Your task to perform on an android device: Go to display settings Image 0: 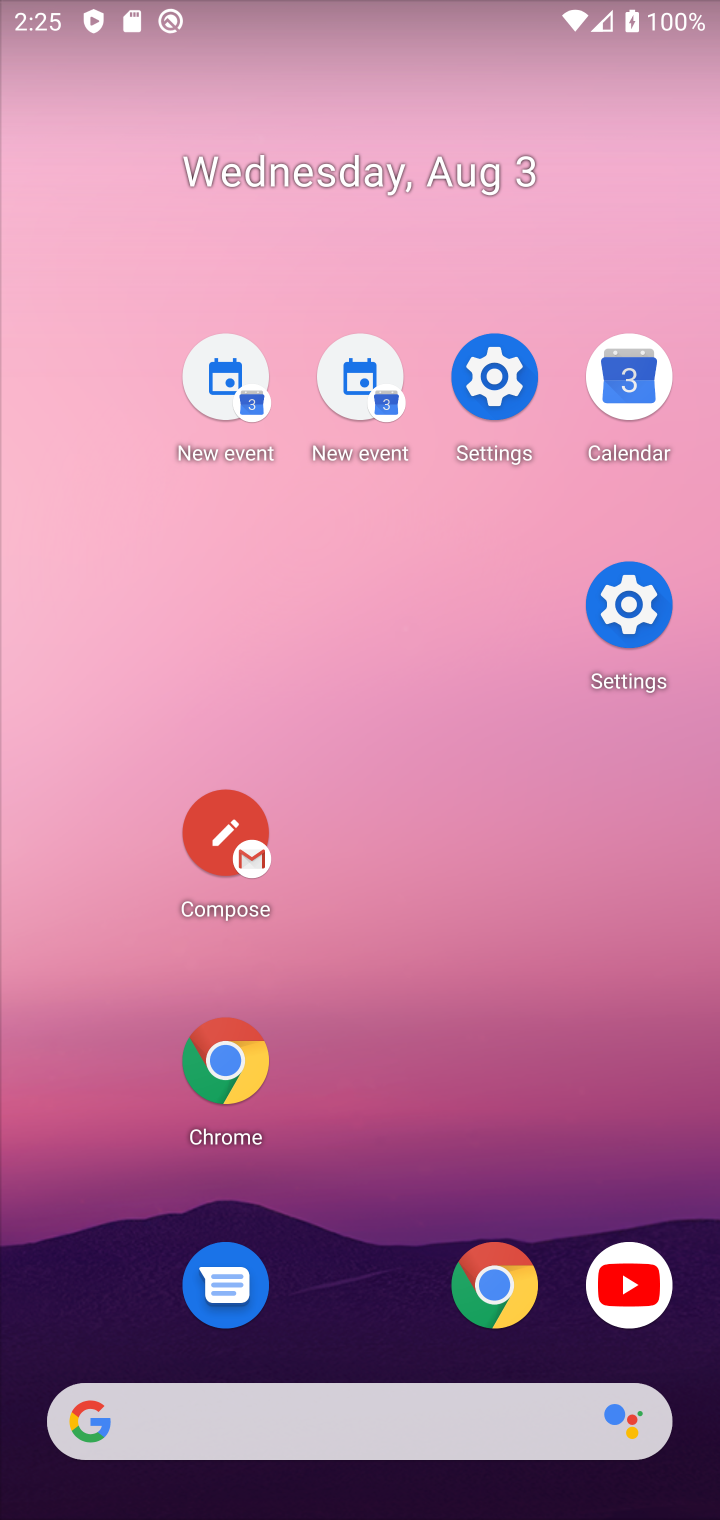
Step 0: drag from (254, 439) to (244, 100)
Your task to perform on an android device: Go to display settings Image 1: 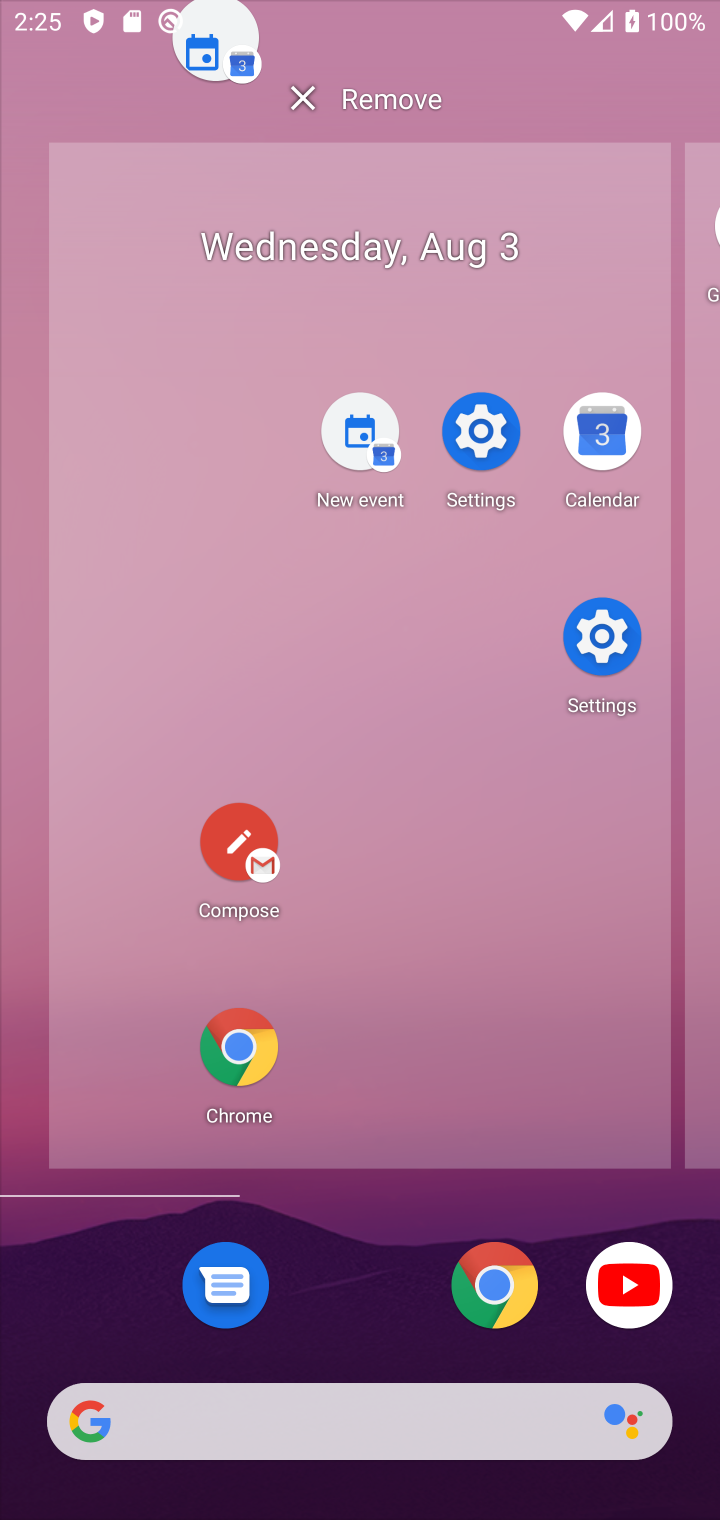
Step 1: click (298, 70)
Your task to perform on an android device: Go to display settings Image 2: 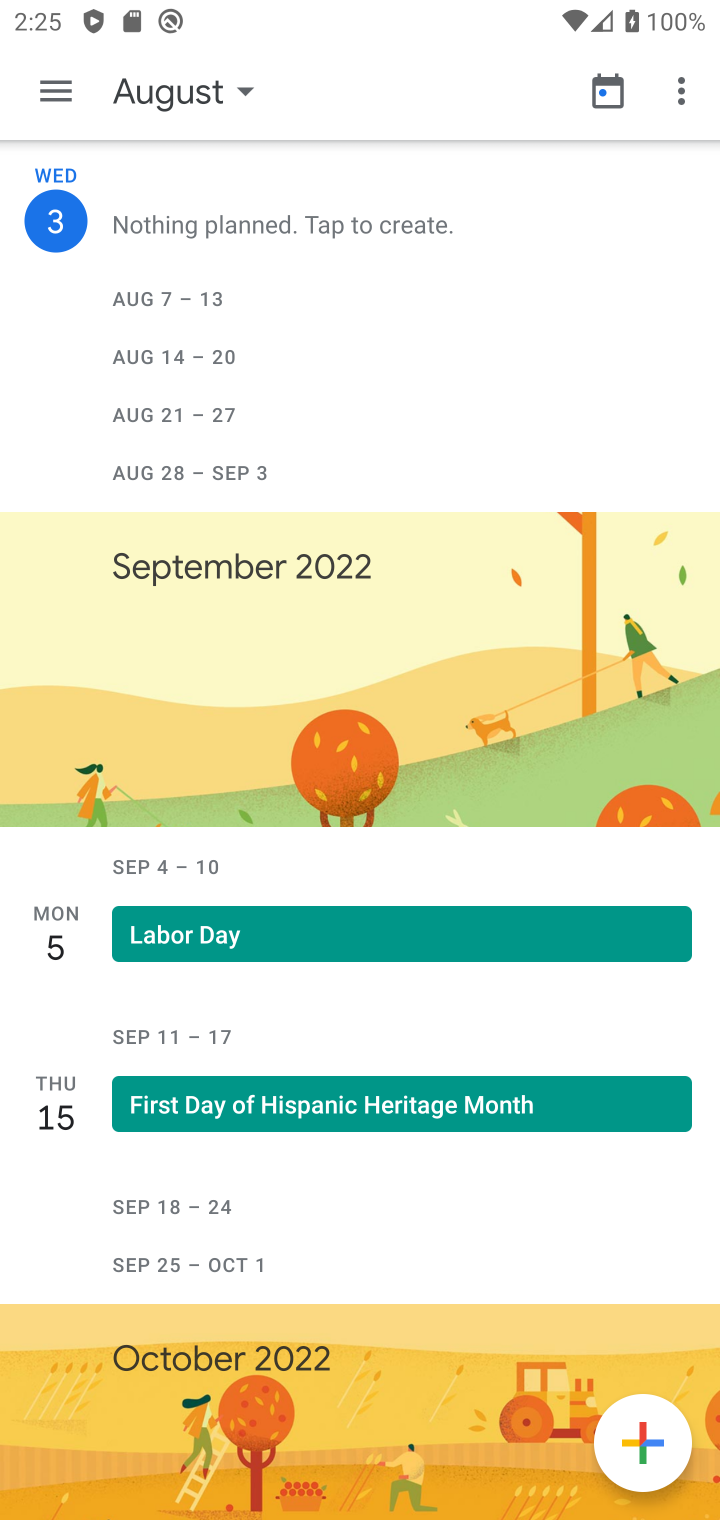
Step 2: press back button
Your task to perform on an android device: Go to display settings Image 3: 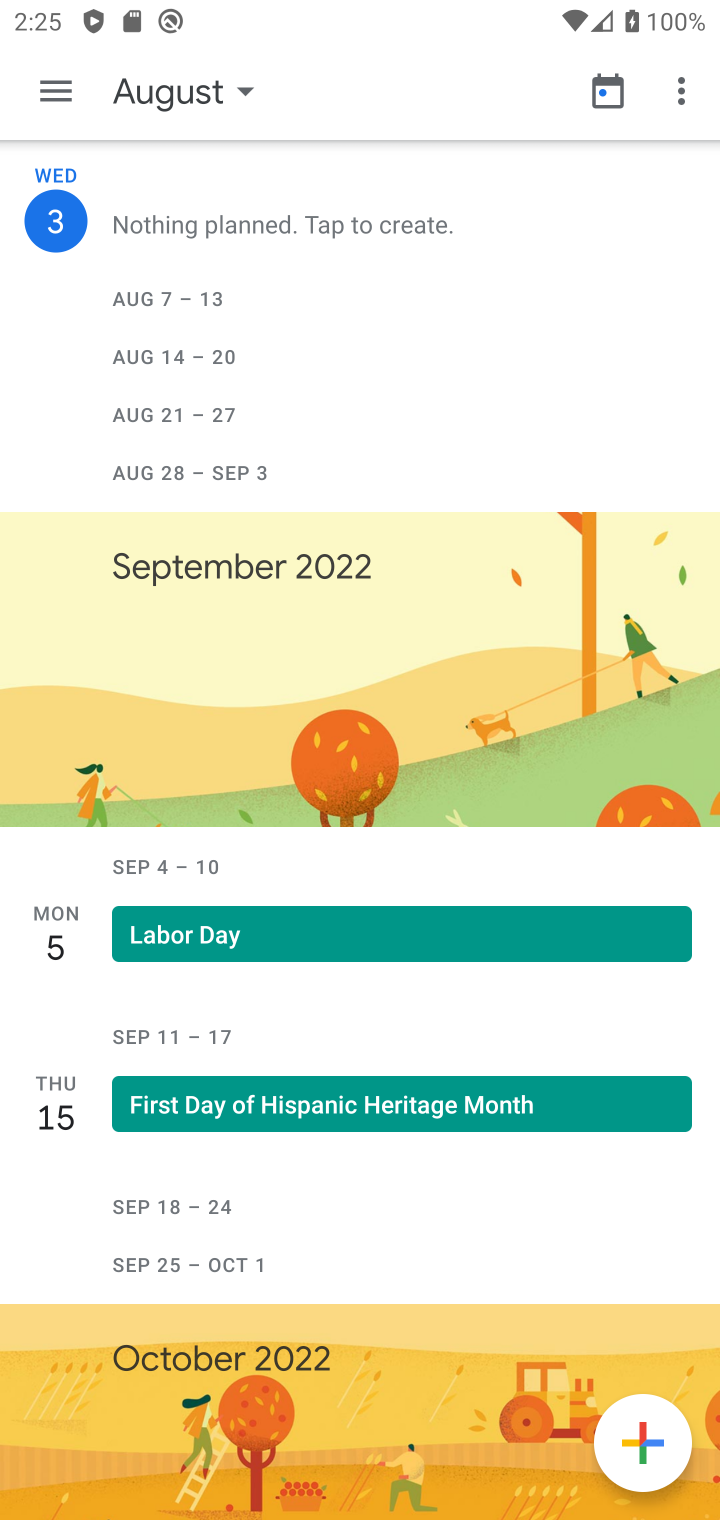
Step 3: press back button
Your task to perform on an android device: Go to display settings Image 4: 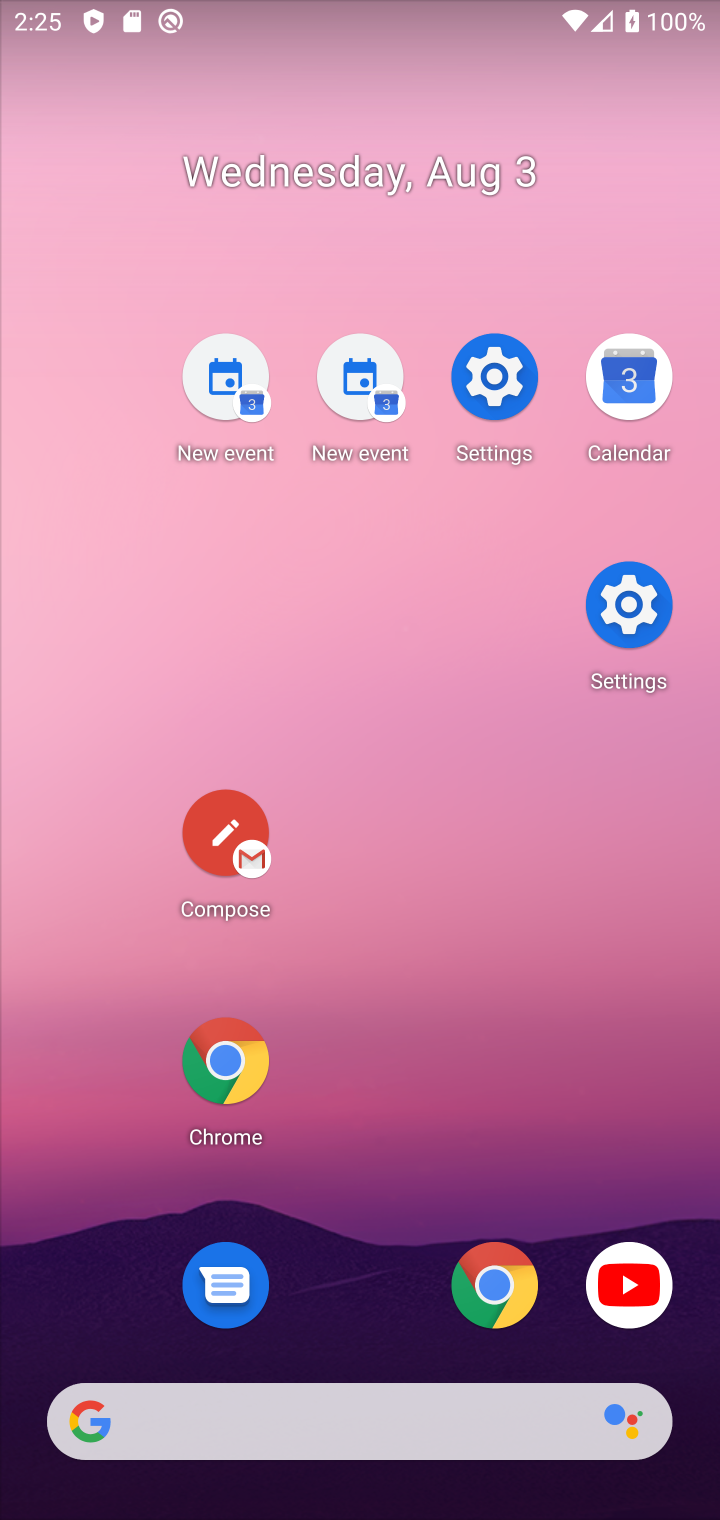
Step 4: press back button
Your task to perform on an android device: Go to display settings Image 5: 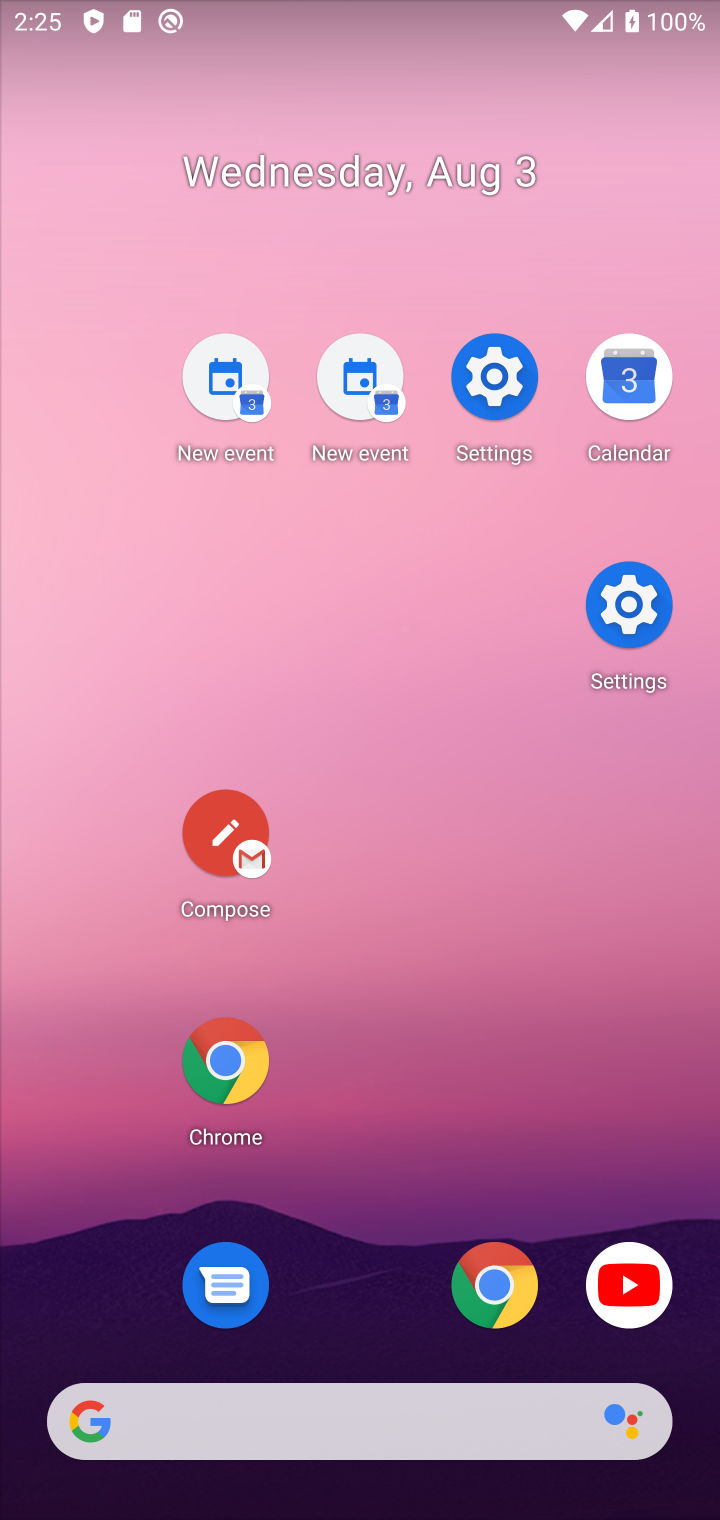
Step 5: press home button
Your task to perform on an android device: Go to display settings Image 6: 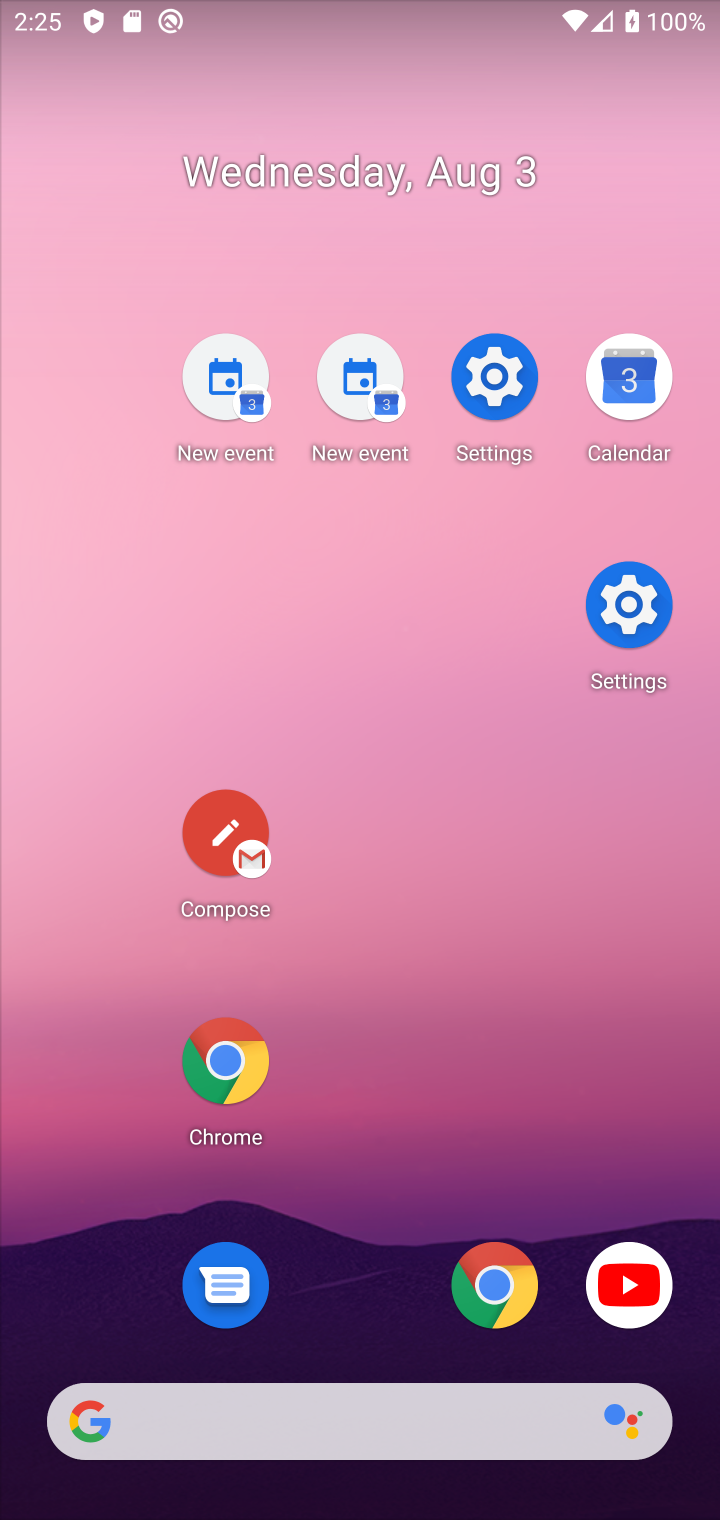
Step 6: drag from (310, 998) to (266, 436)
Your task to perform on an android device: Go to display settings Image 7: 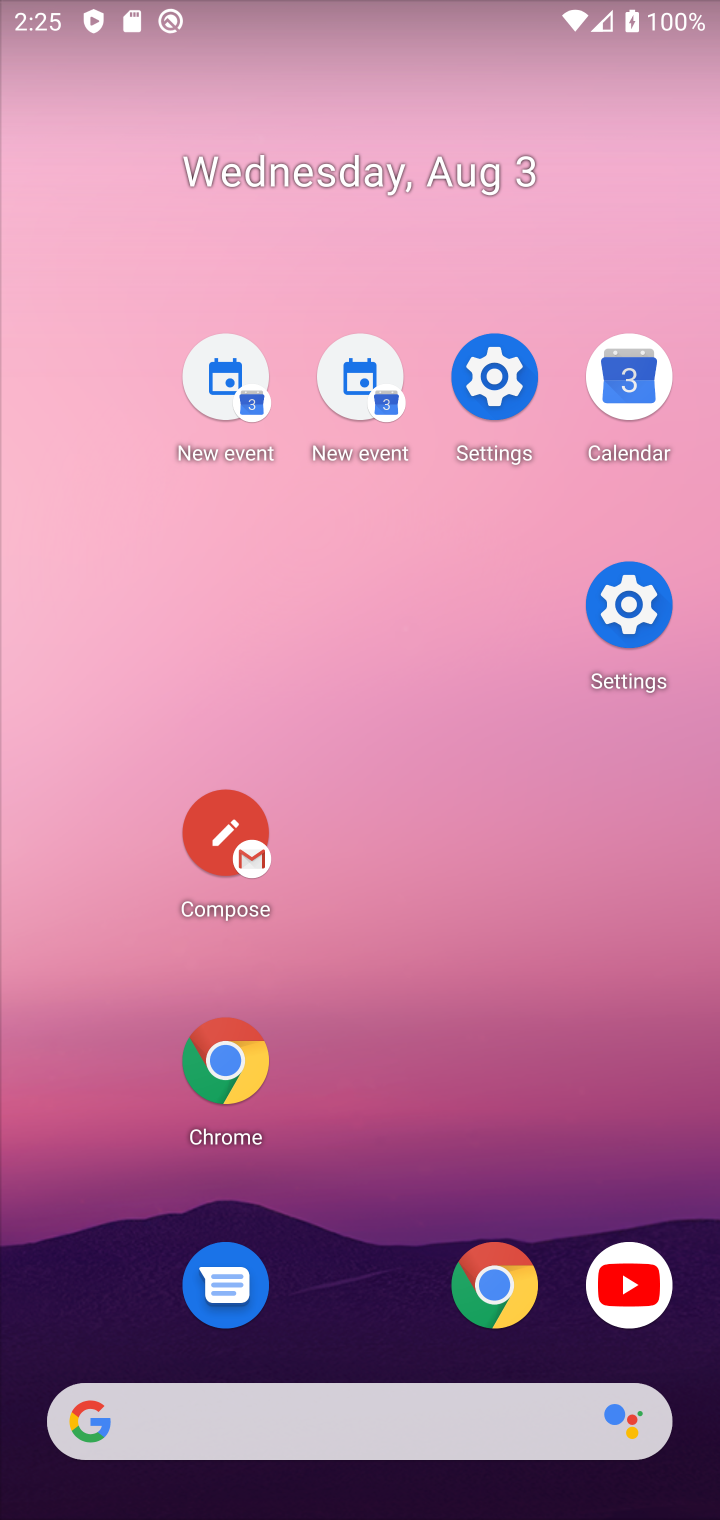
Step 7: drag from (395, 422) to (399, 188)
Your task to perform on an android device: Go to display settings Image 8: 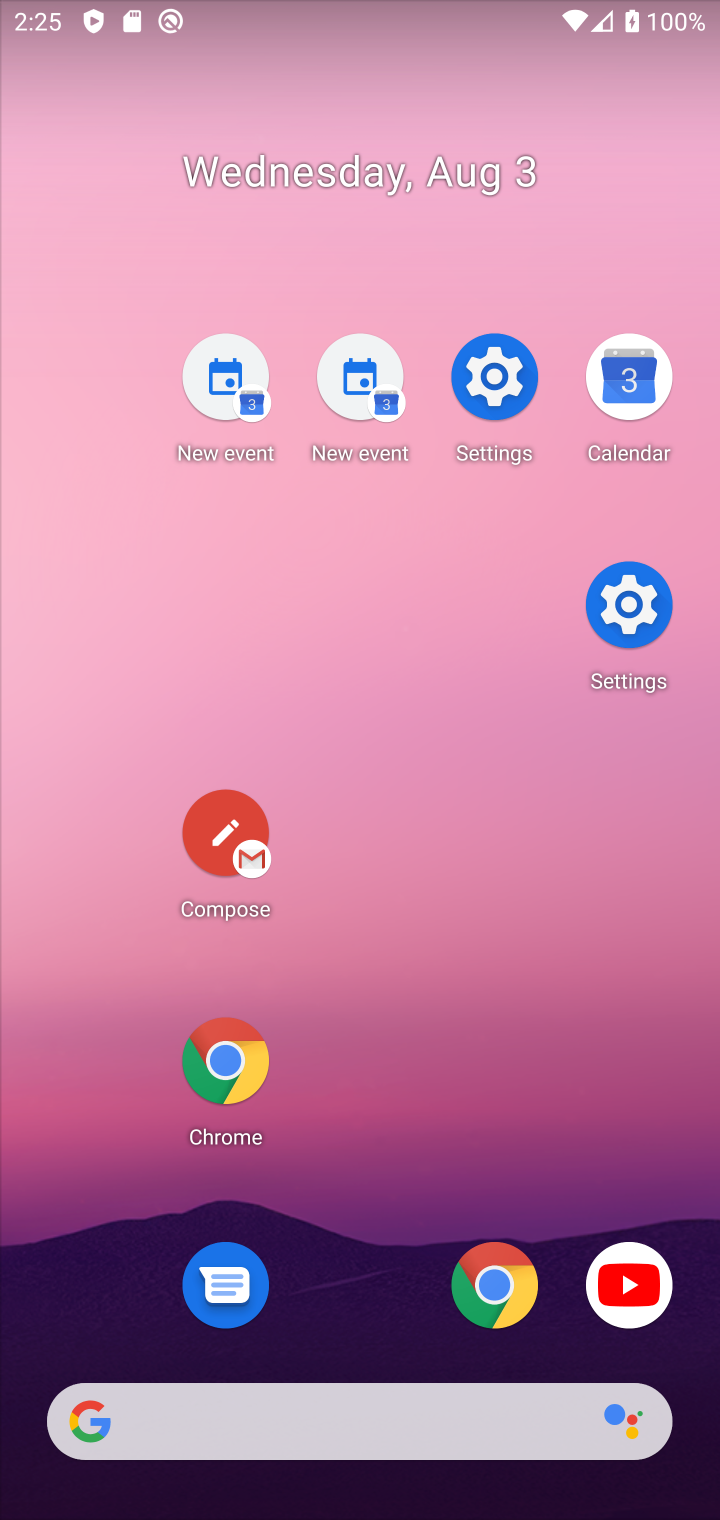
Step 8: drag from (320, 240) to (333, 22)
Your task to perform on an android device: Go to display settings Image 9: 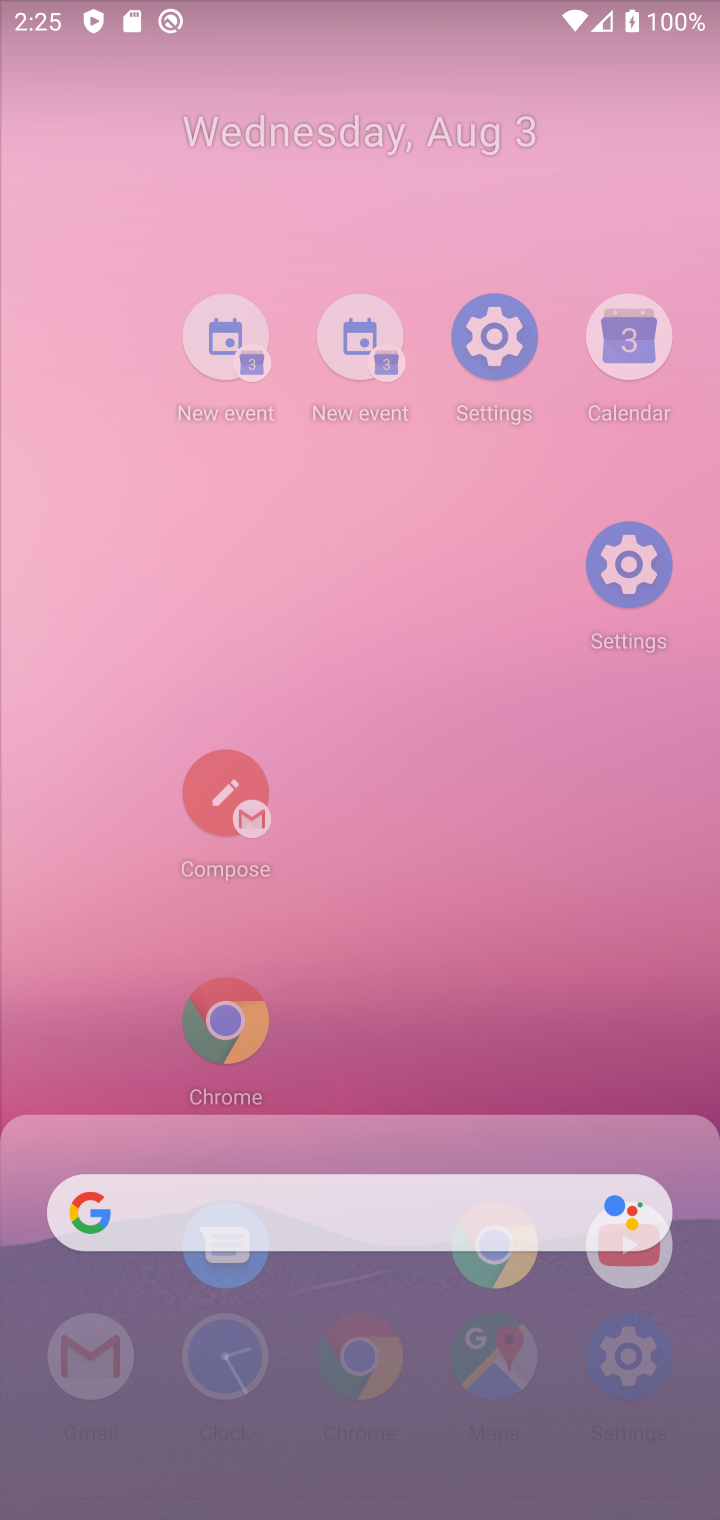
Step 9: drag from (387, 623) to (410, 174)
Your task to perform on an android device: Go to display settings Image 10: 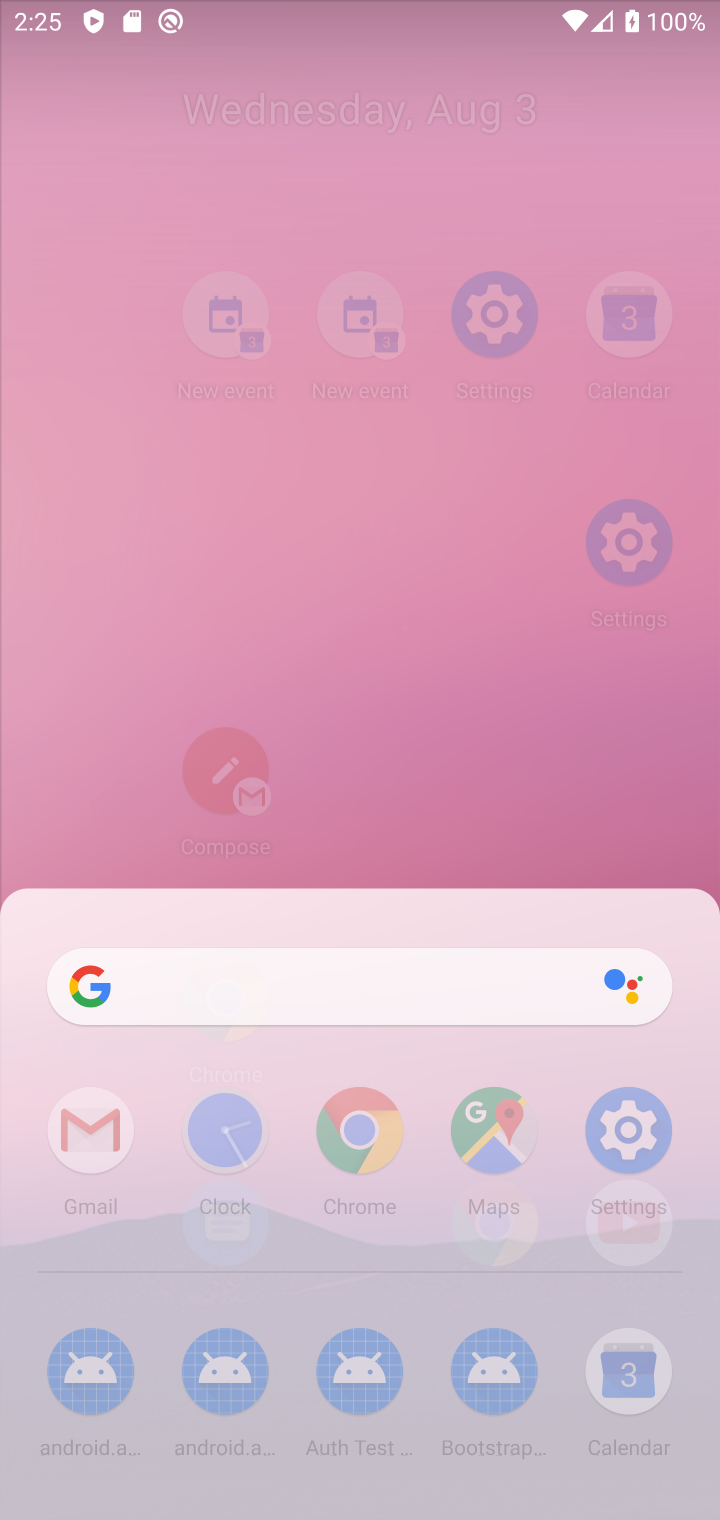
Step 10: click (390, 71)
Your task to perform on an android device: Go to display settings Image 11: 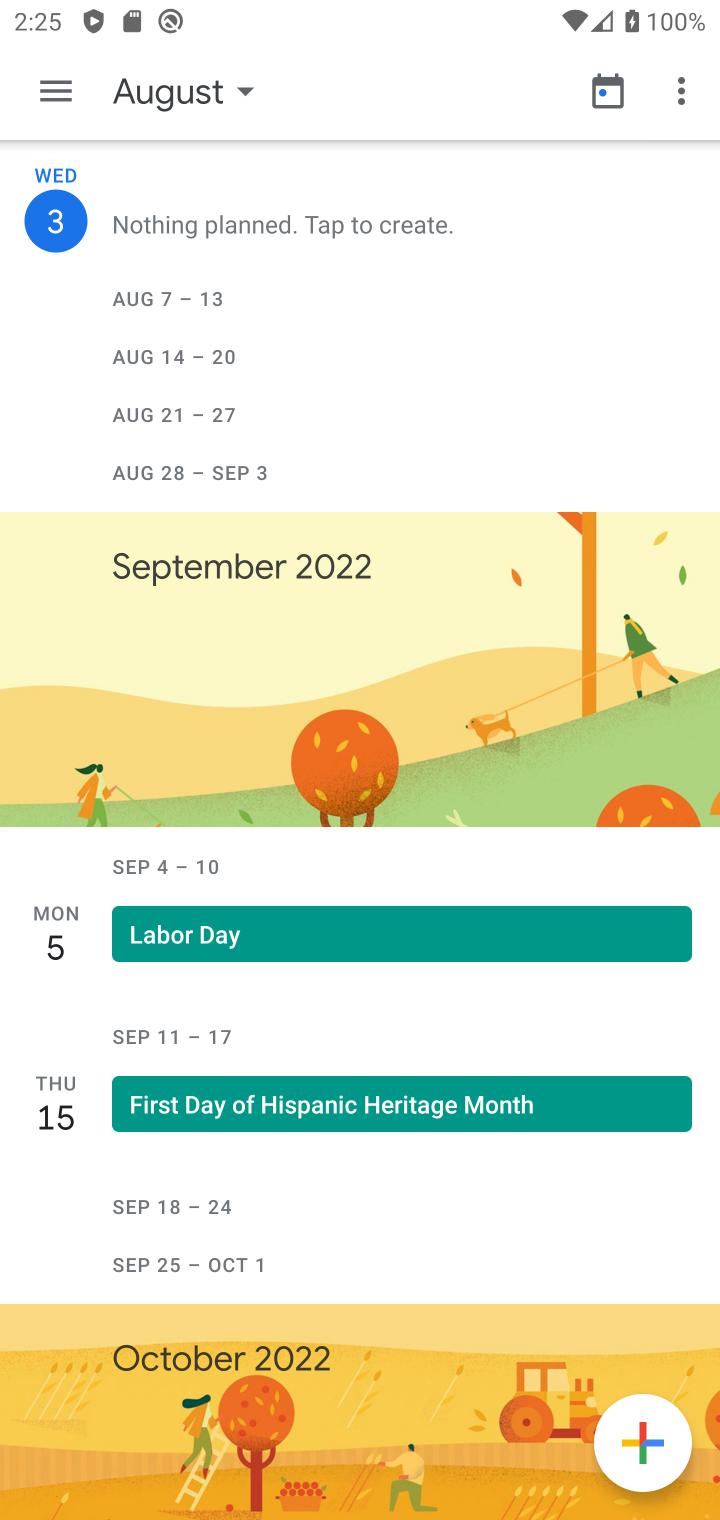
Step 11: press back button
Your task to perform on an android device: Go to display settings Image 12: 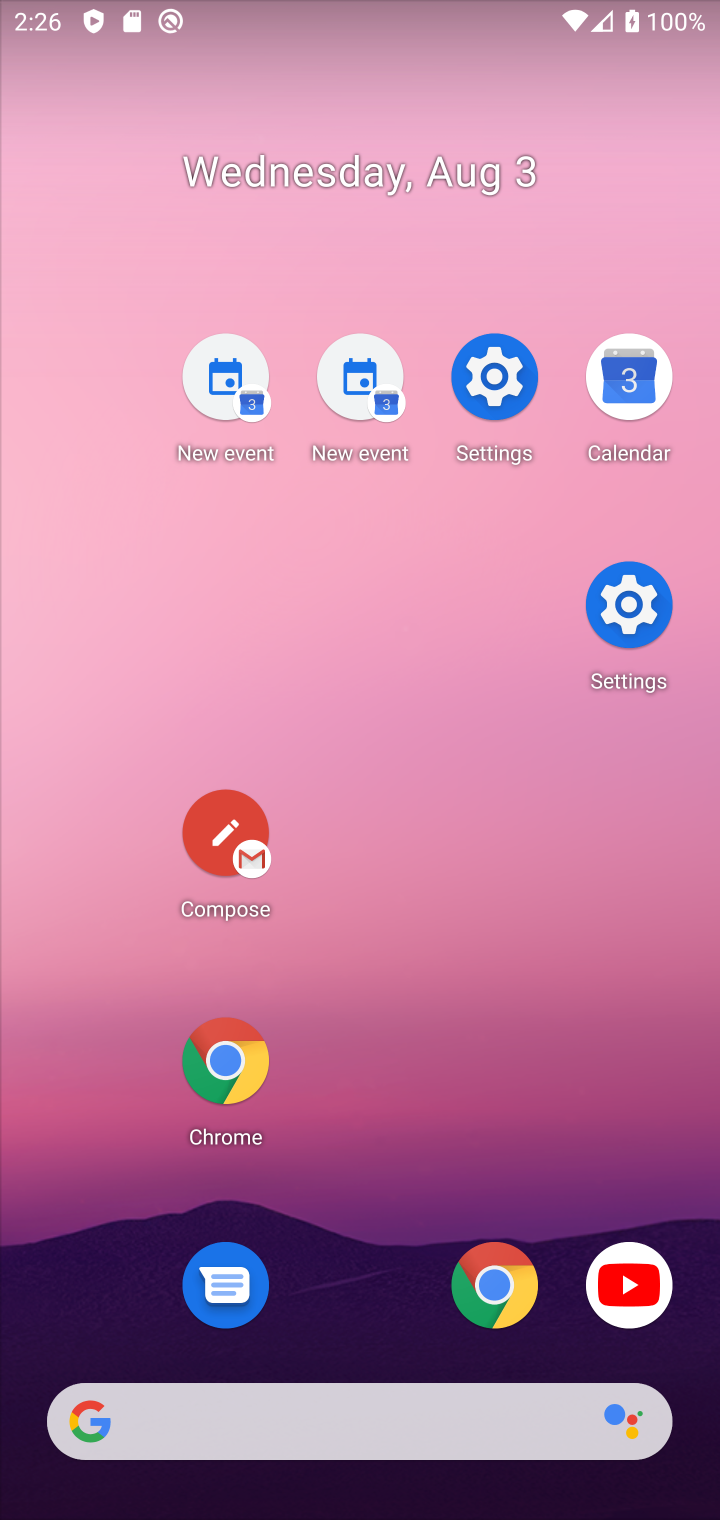
Step 12: click (623, 636)
Your task to perform on an android device: Go to display settings Image 13: 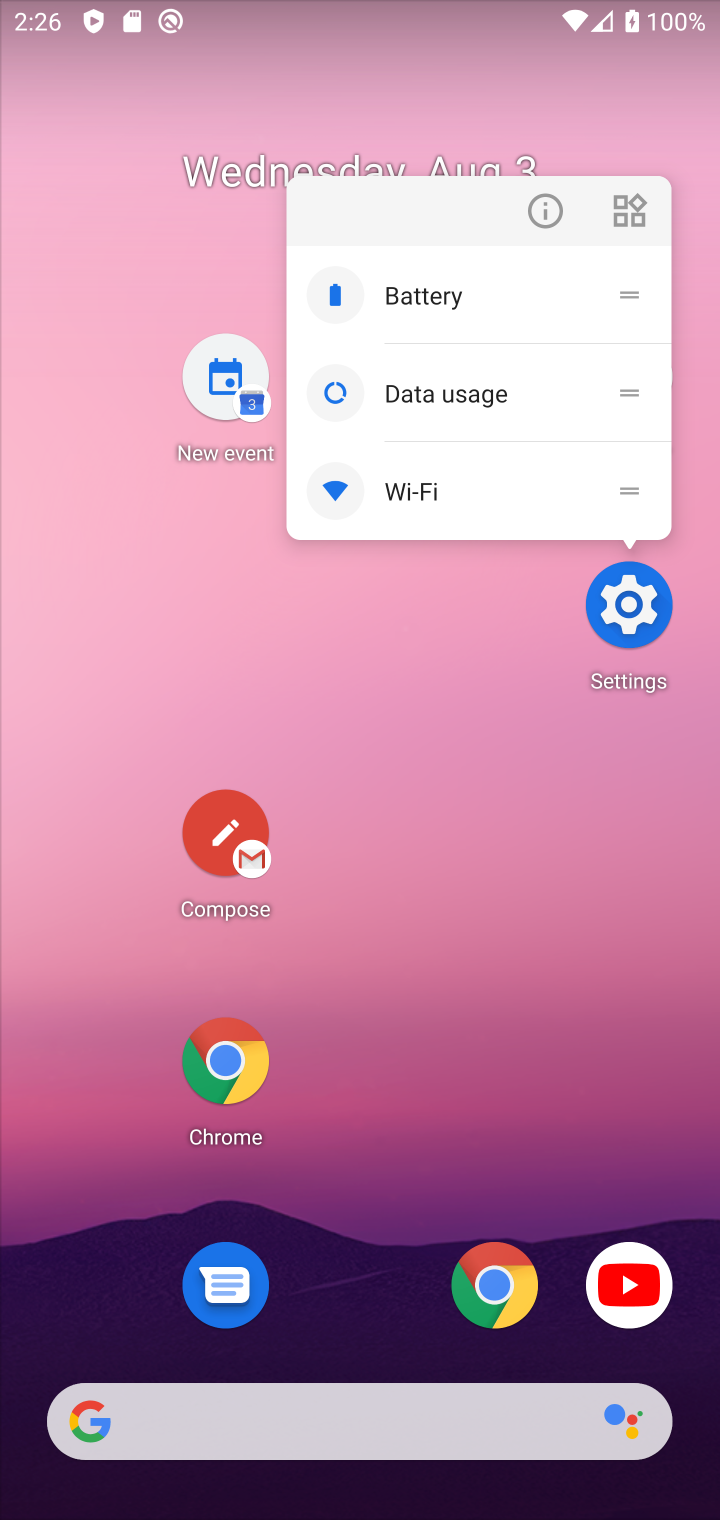
Step 13: click (436, 390)
Your task to perform on an android device: Go to display settings Image 14: 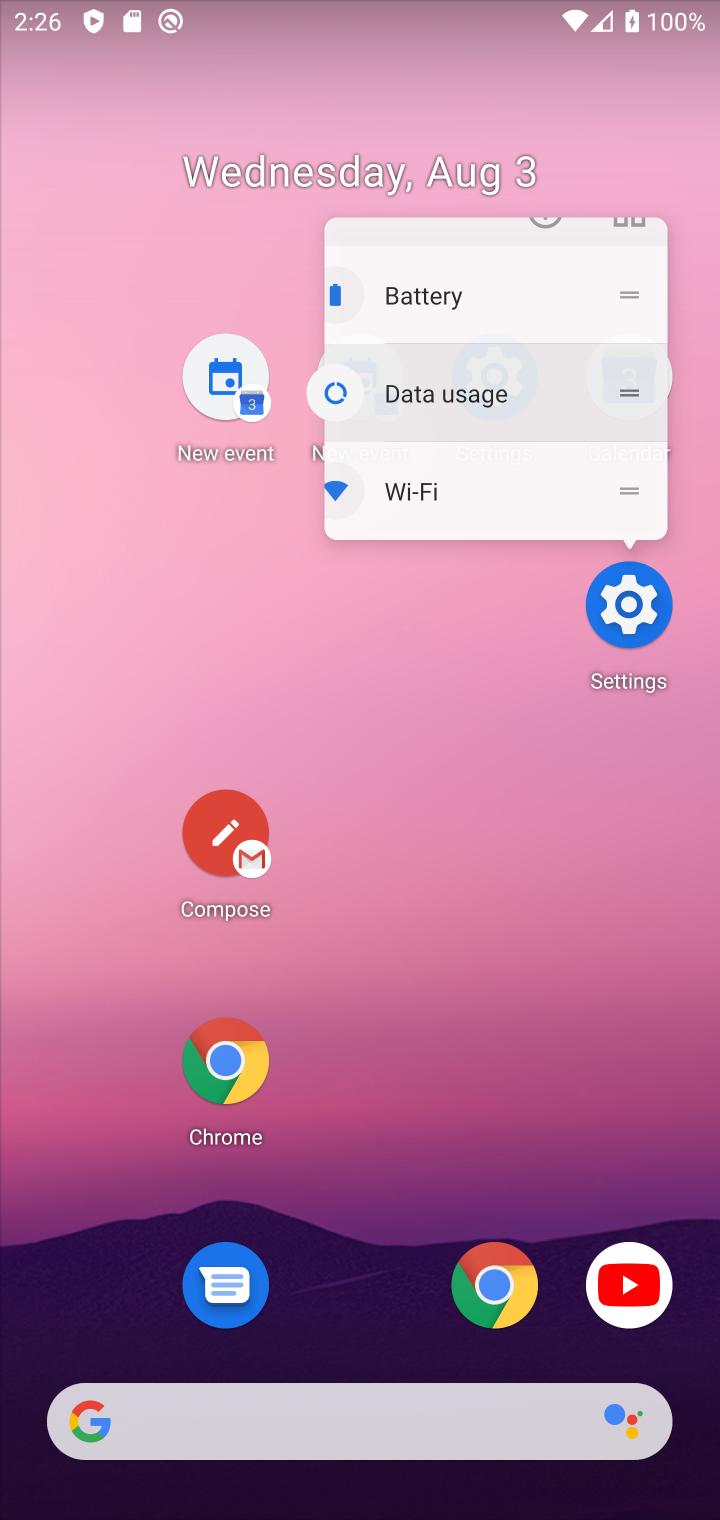
Step 14: click (436, 390)
Your task to perform on an android device: Go to display settings Image 15: 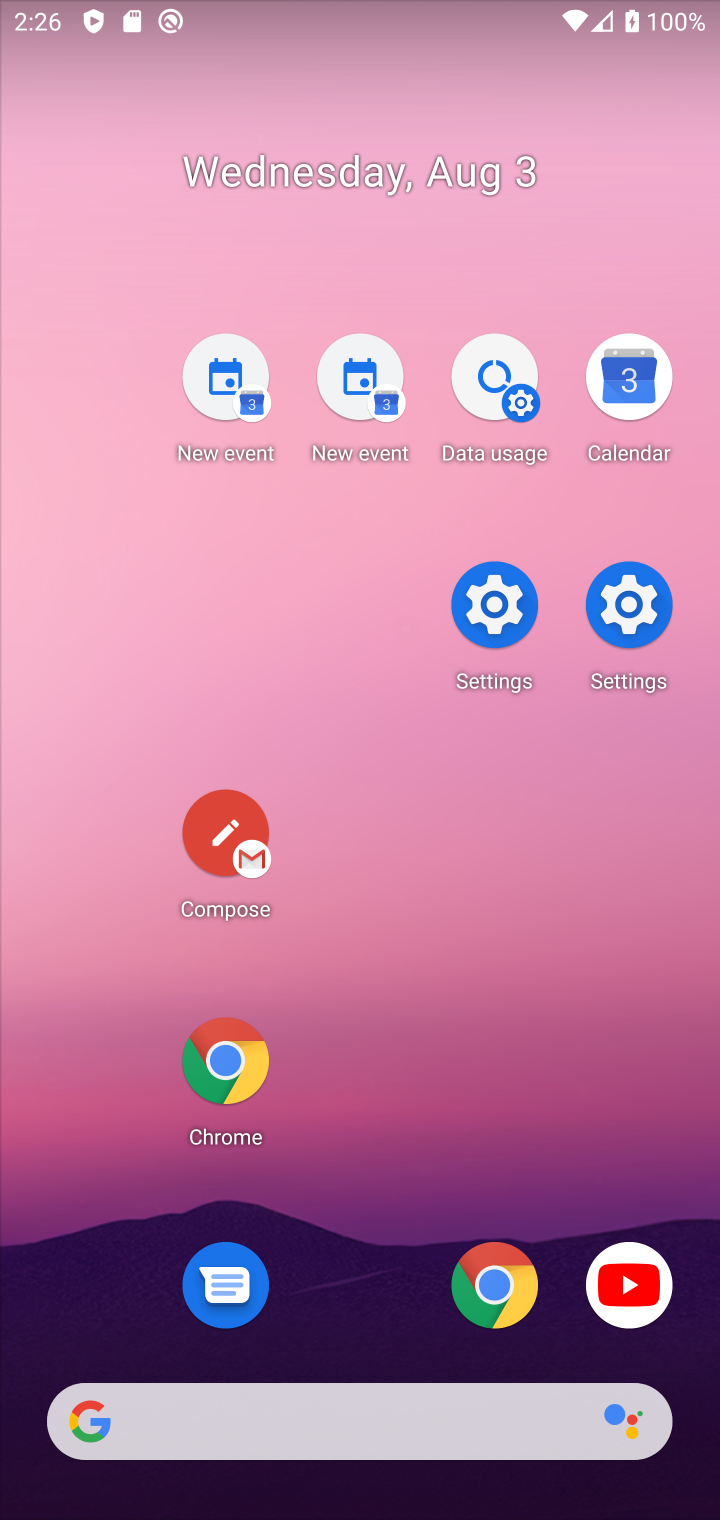
Step 15: drag from (355, 1047) to (285, 260)
Your task to perform on an android device: Go to display settings Image 16: 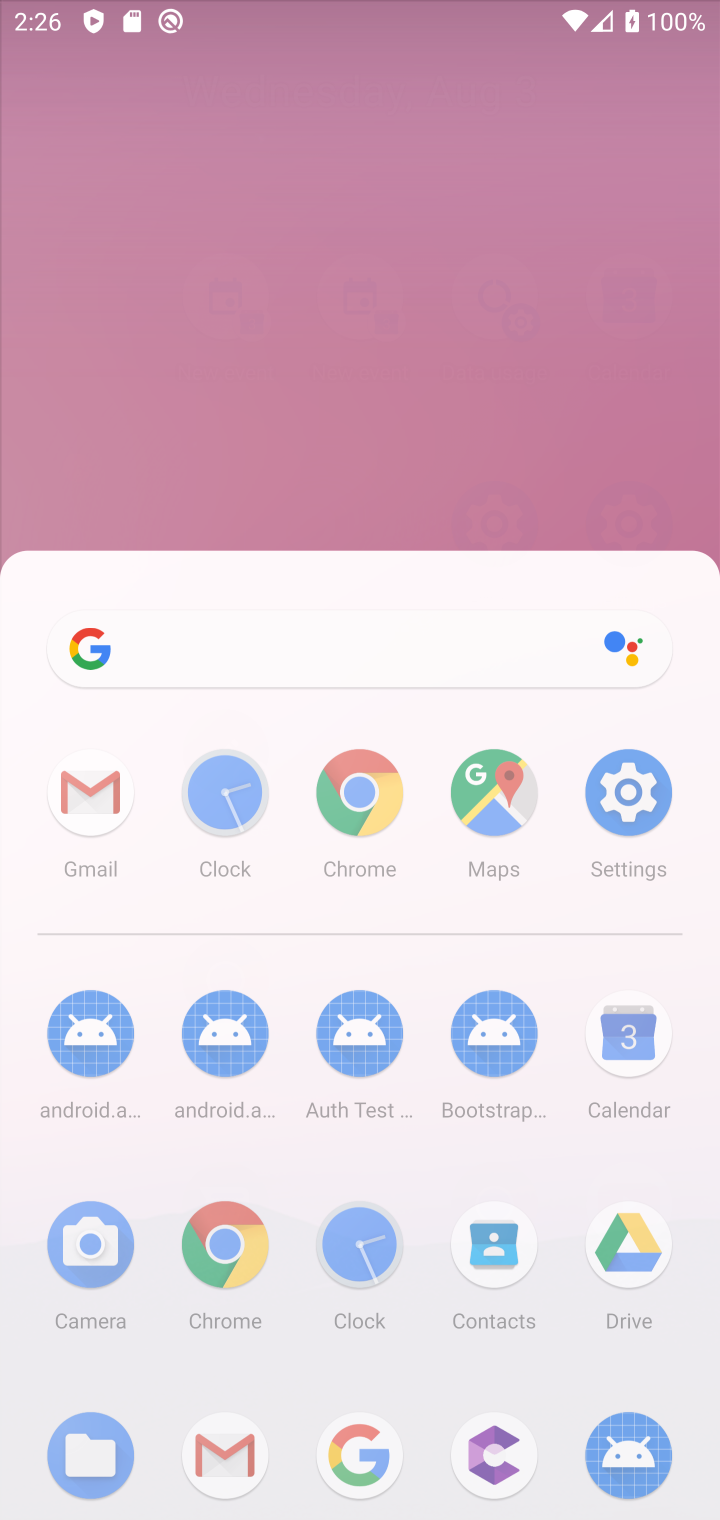
Step 16: drag from (438, 794) to (252, 15)
Your task to perform on an android device: Go to display settings Image 17: 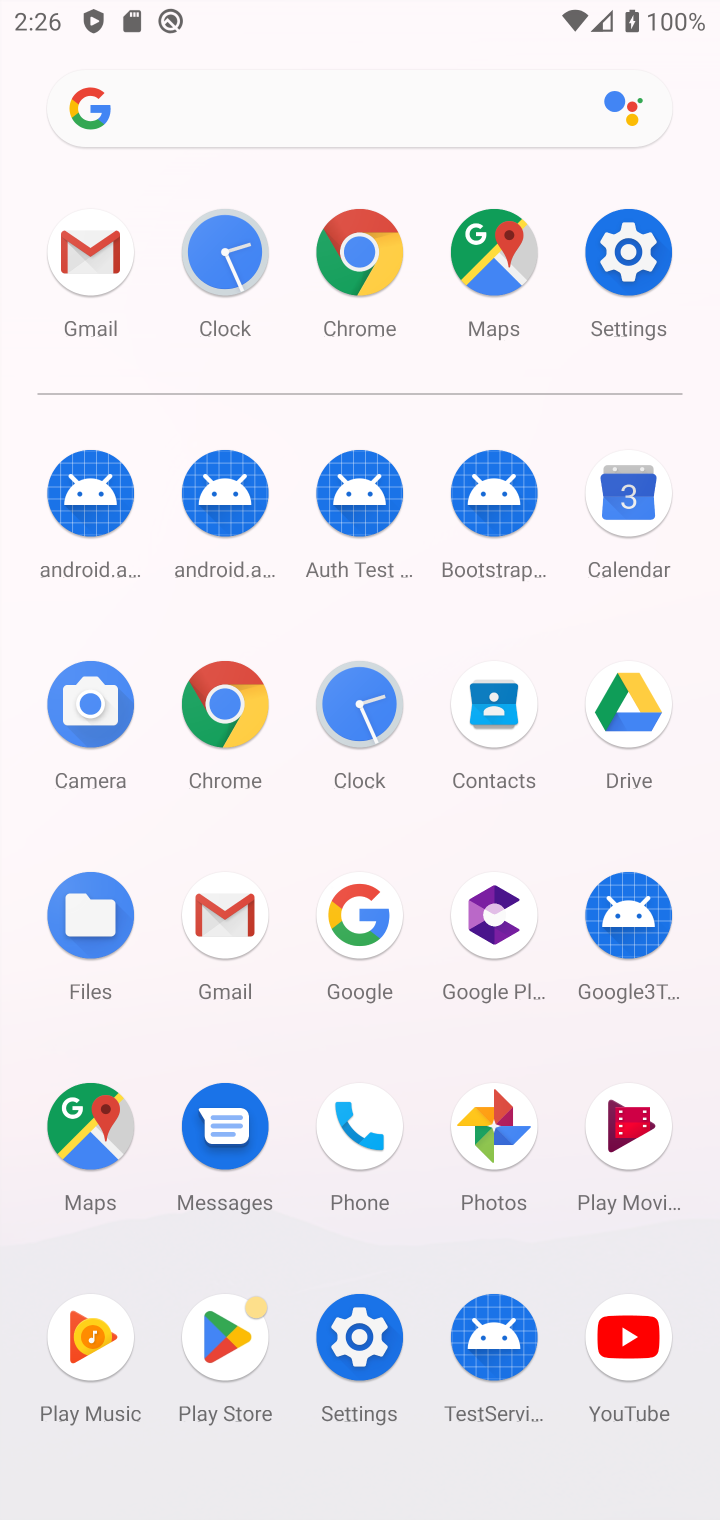
Step 17: click (623, 247)
Your task to perform on an android device: Go to display settings Image 18: 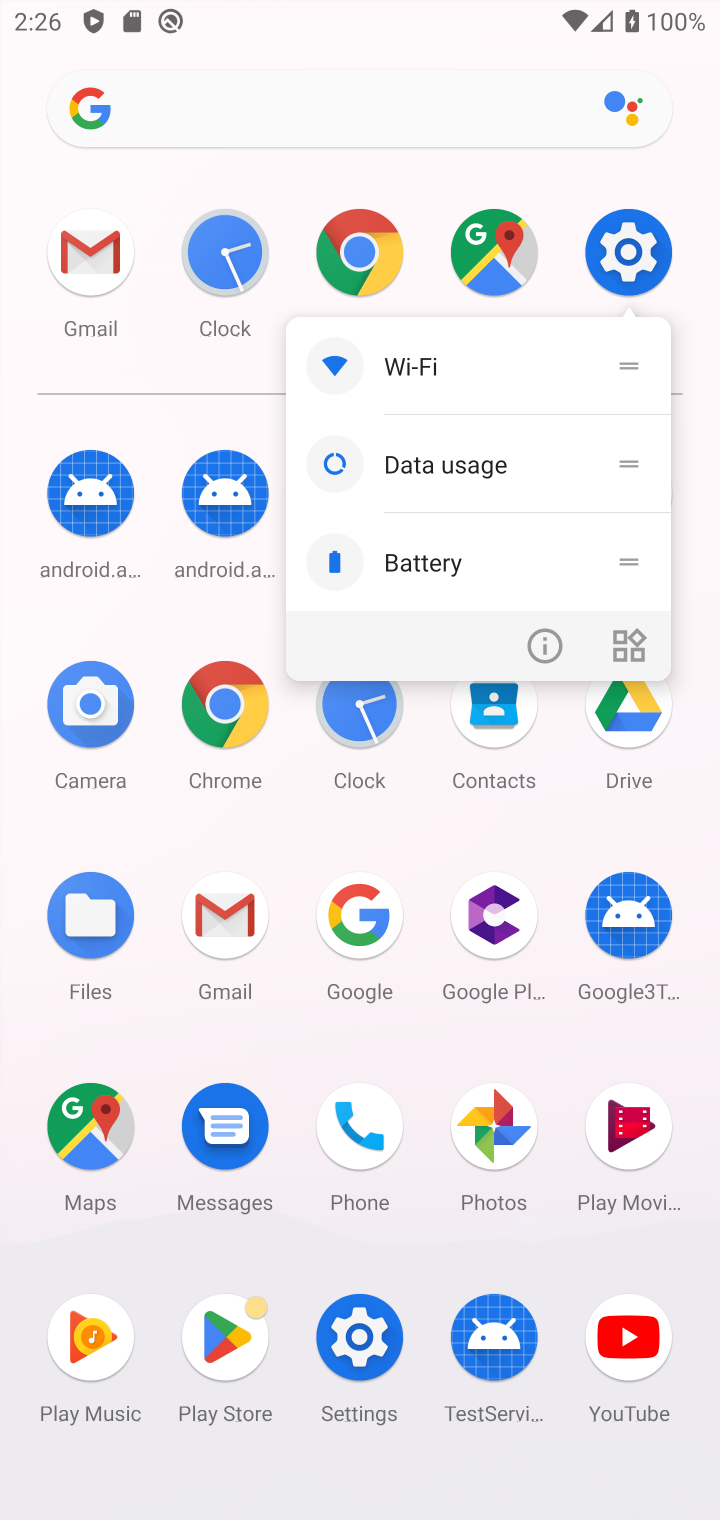
Step 18: click (447, 483)
Your task to perform on an android device: Go to display settings Image 19: 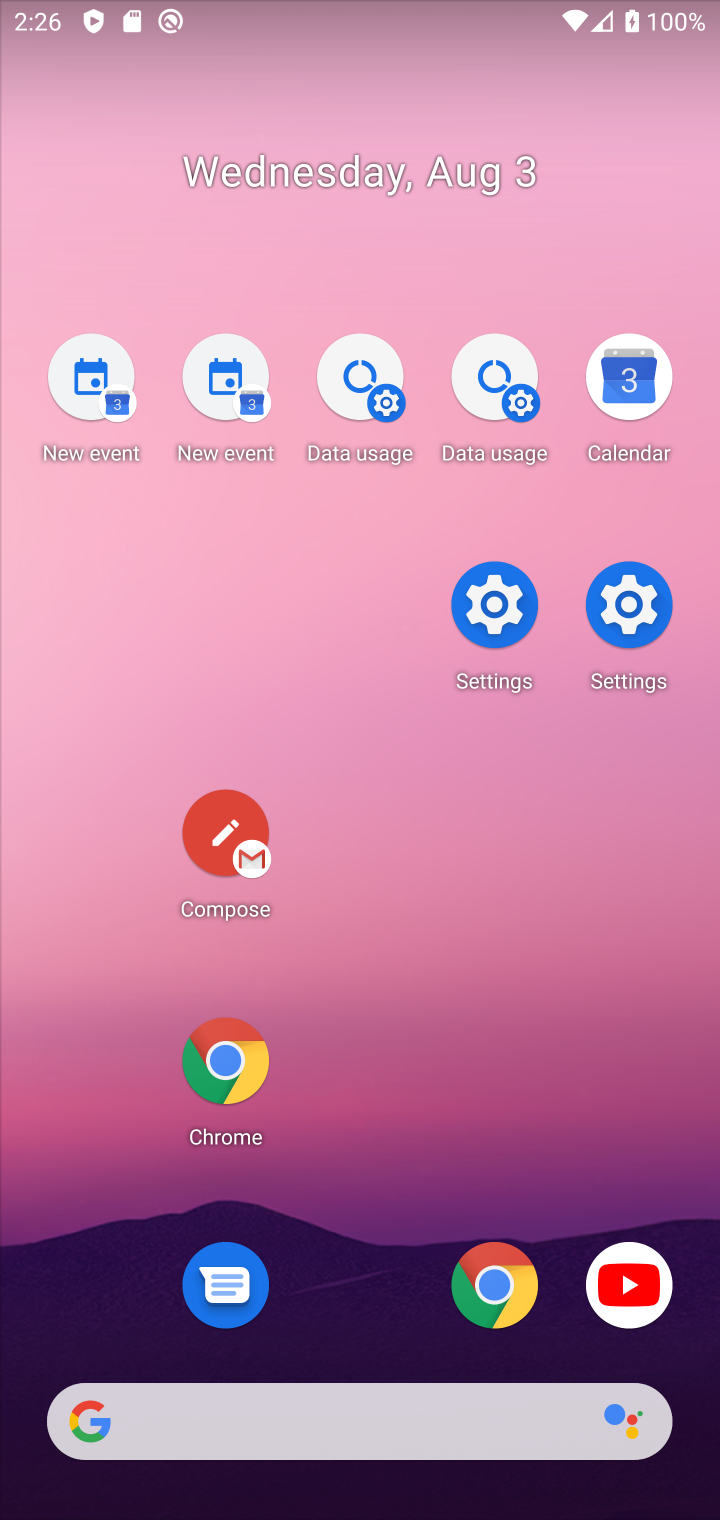
Step 19: task complete